Your task to perform on an android device: toggle javascript in the chrome app Image 0: 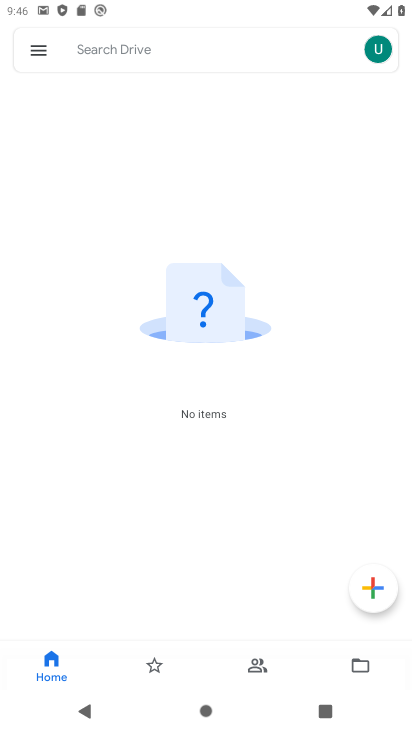
Step 0: press back button
Your task to perform on an android device: toggle javascript in the chrome app Image 1: 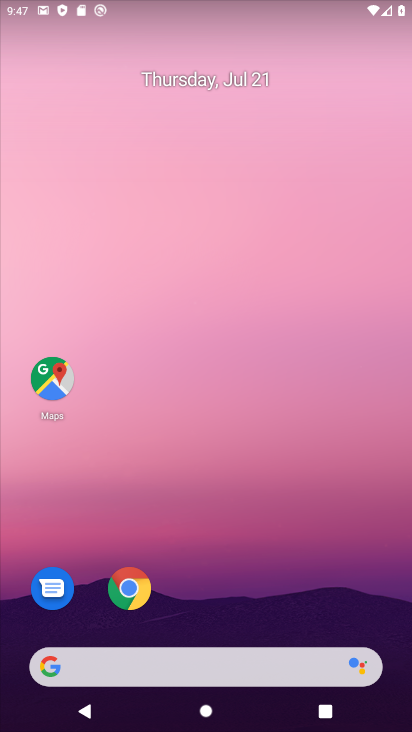
Step 1: click (131, 592)
Your task to perform on an android device: toggle javascript in the chrome app Image 2: 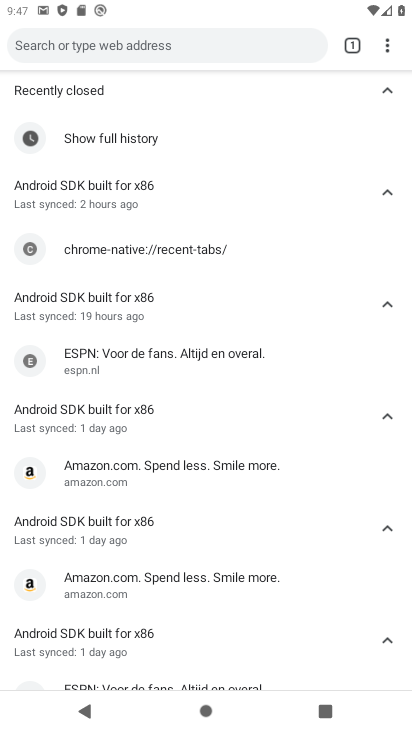
Step 2: drag from (386, 47) to (231, 377)
Your task to perform on an android device: toggle javascript in the chrome app Image 3: 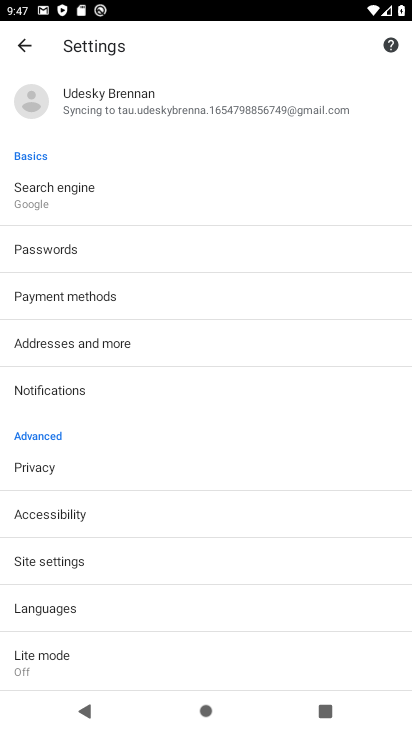
Step 3: click (60, 549)
Your task to perform on an android device: toggle javascript in the chrome app Image 4: 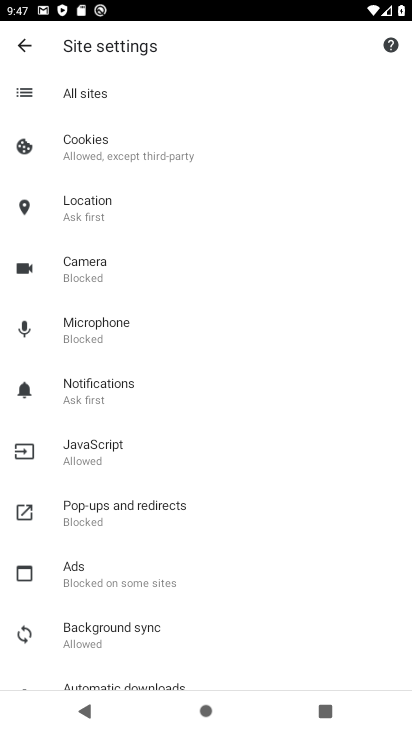
Step 4: click (106, 442)
Your task to perform on an android device: toggle javascript in the chrome app Image 5: 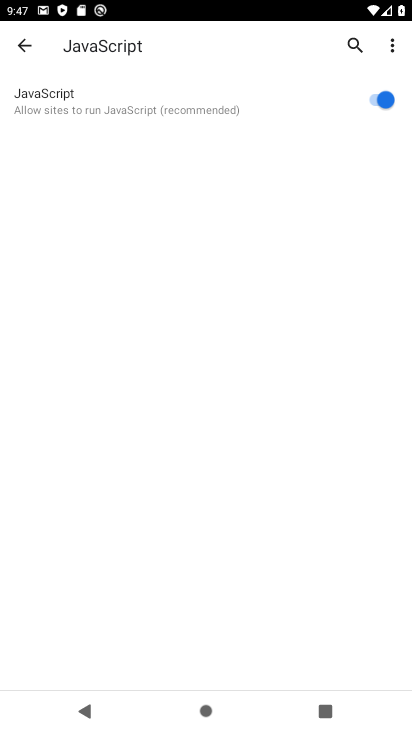
Step 5: click (380, 98)
Your task to perform on an android device: toggle javascript in the chrome app Image 6: 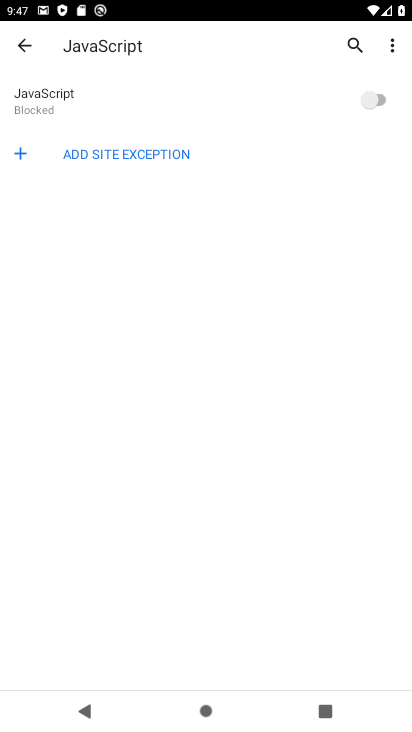
Step 6: task complete